Your task to perform on an android device: install app "DoorDash - Food Delivery" Image 0: 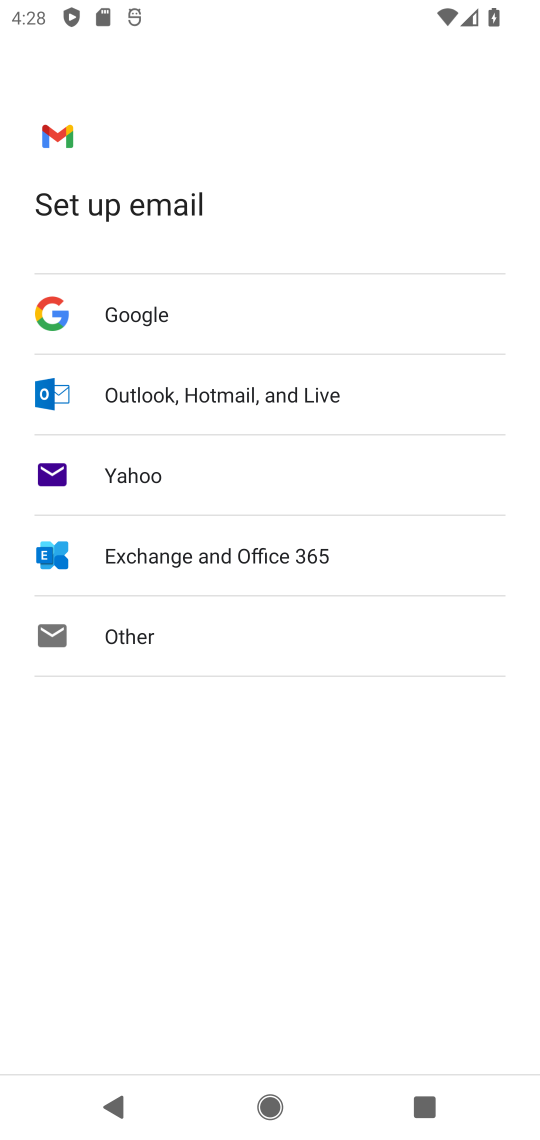
Step 0: press home button
Your task to perform on an android device: install app "DoorDash - Food Delivery" Image 1: 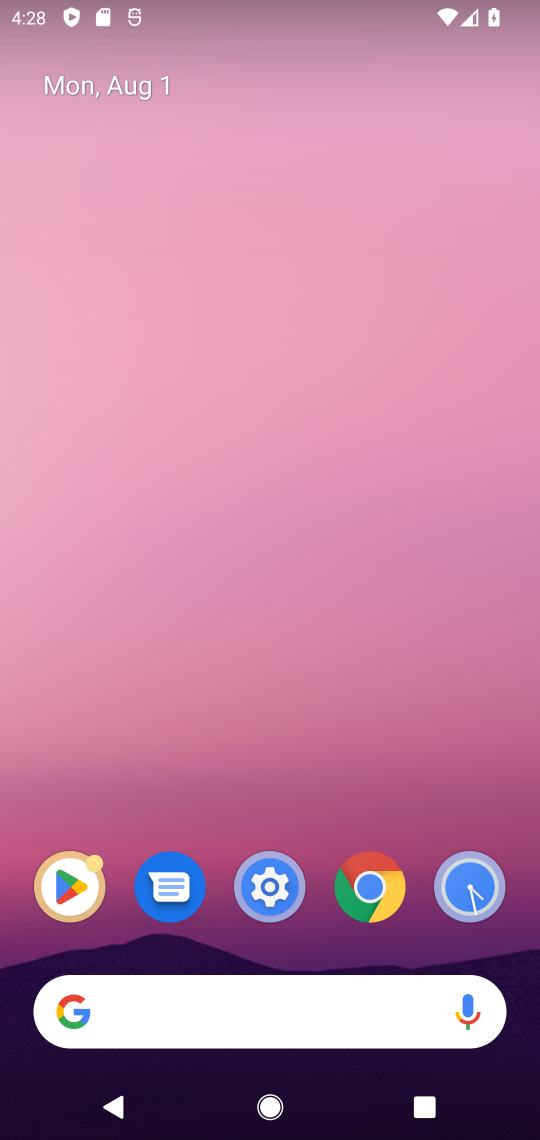
Step 1: click (69, 868)
Your task to perform on an android device: install app "DoorDash - Food Delivery" Image 2: 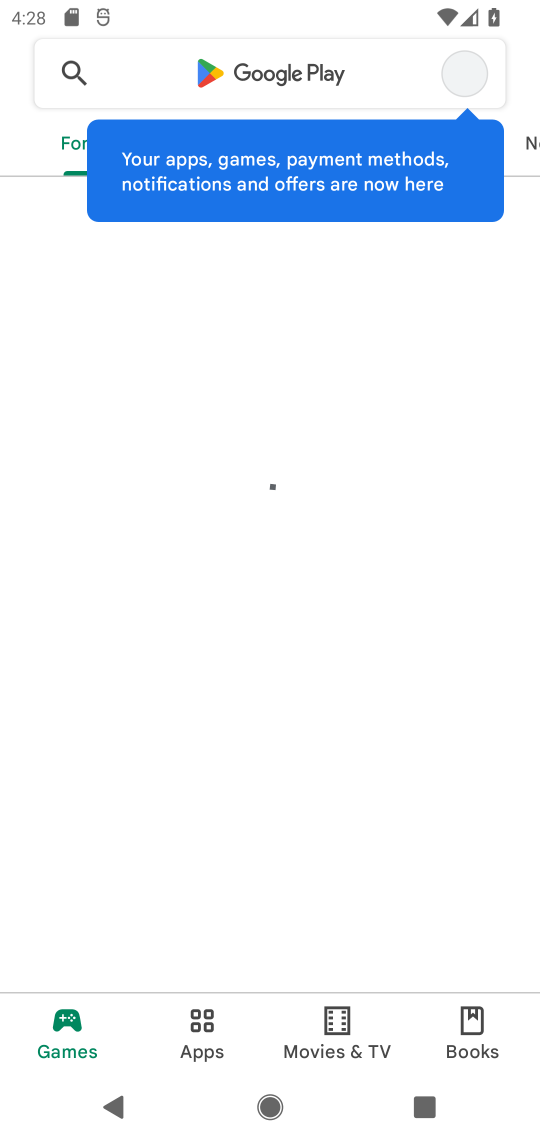
Step 2: click (173, 55)
Your task to perform on an android device: install app "DoorDash - Food Delivery" Image 3: 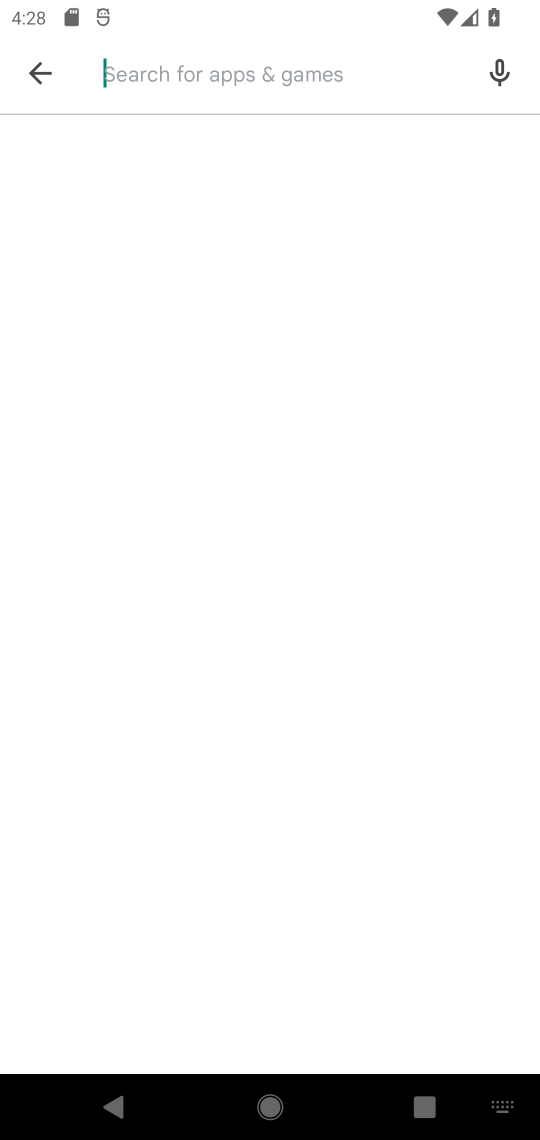
Step 3: type "DoorDash - Food Deliver"
Your task to perform on an android device: install app "DoorDash - Food Delivery" Image 4: 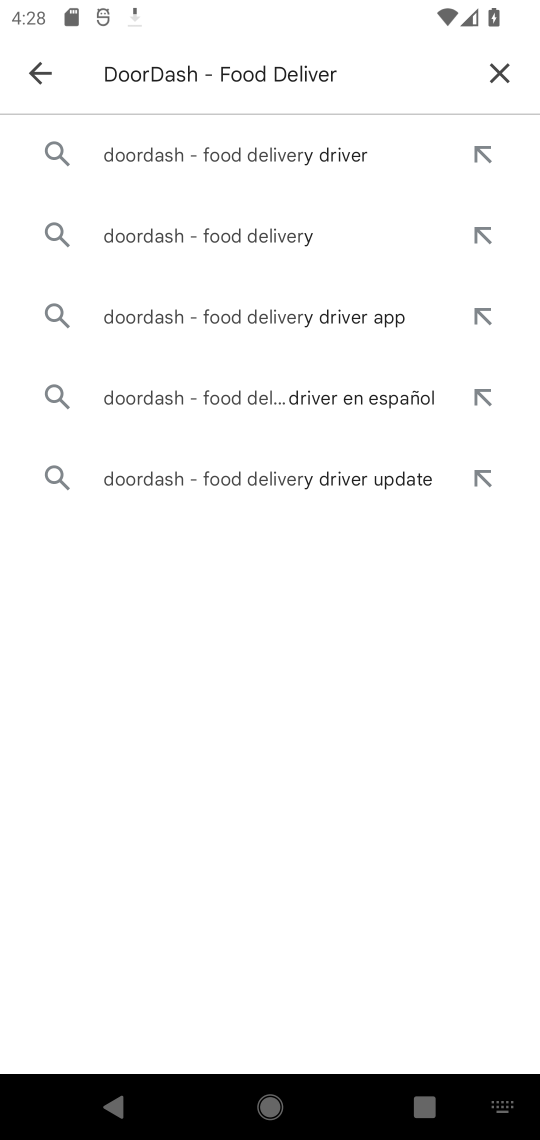
Step 4: click (189, 160)
Your task to perform on an android device: install app "DoorDash - Food Delivery" Image 5: 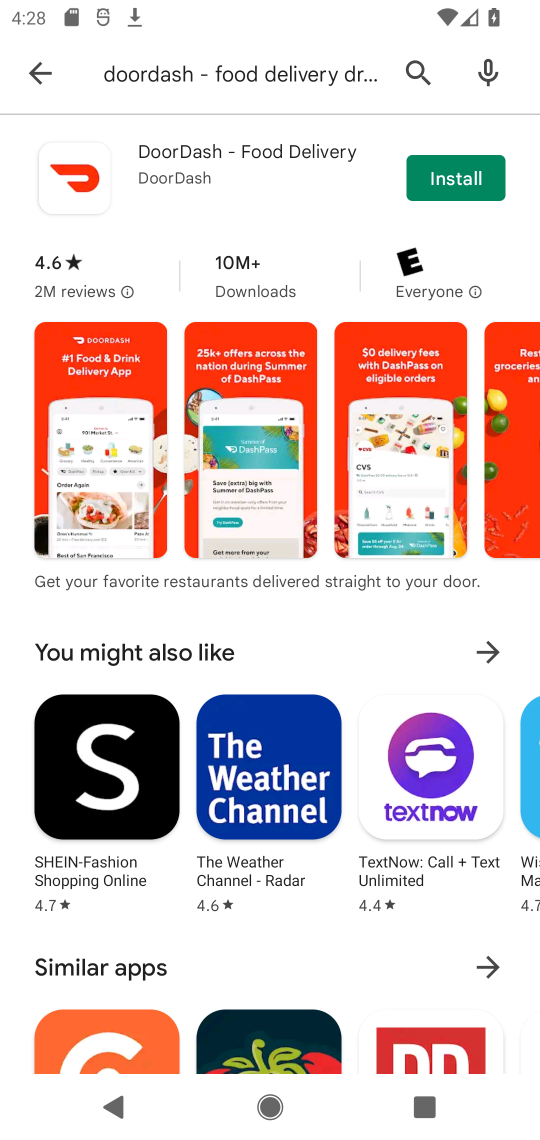
Step 5: click (461, 176)
Your task to perform on an android device: install app "DoorDash - Food Delivery" Image 6: 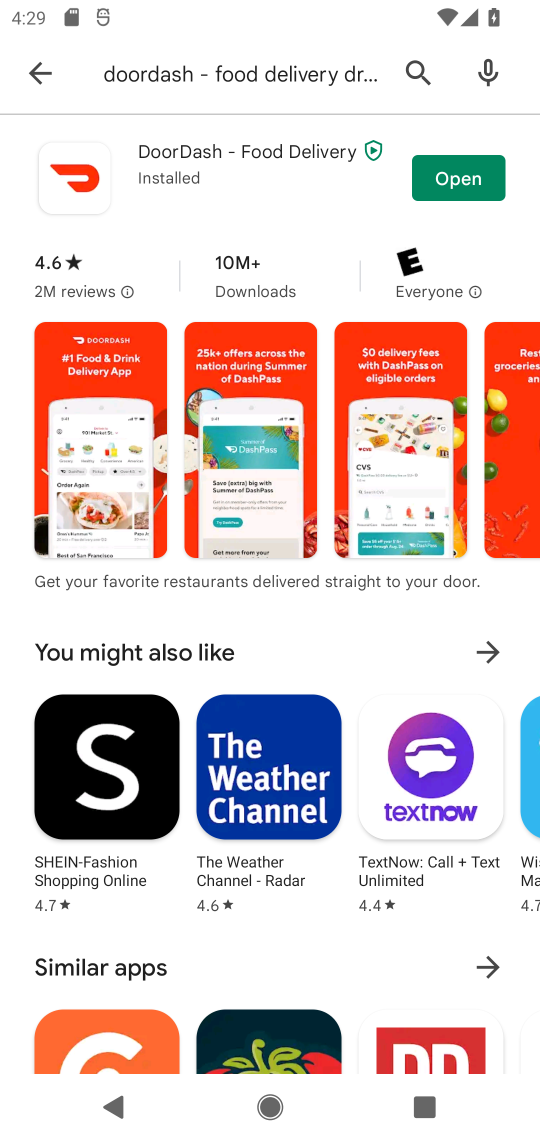
Step 6: click (510, 171)
Your task to perform on an android device: install app "DoorDash - Food Delivery" Image 7: 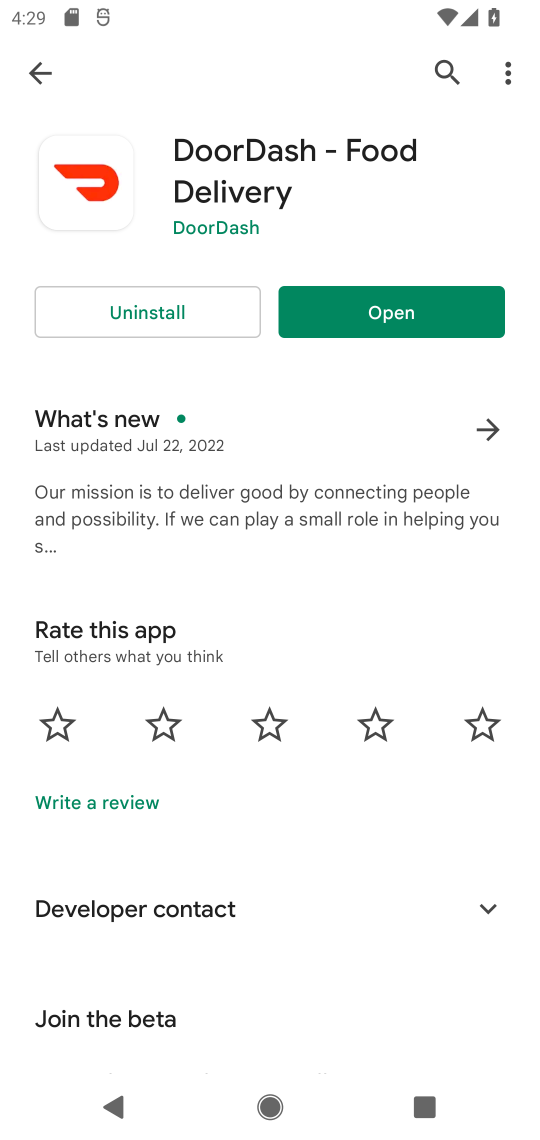
Step 7: task complete